Your task to perform on an android device: see creations saved in the google photos Image 0: 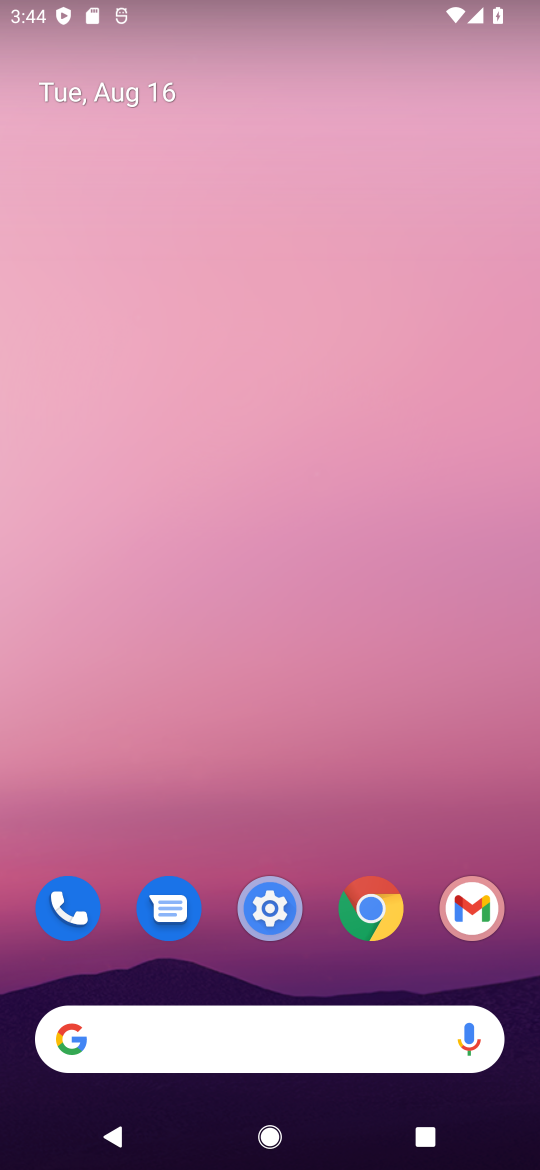
Step 0: click (268, 906)
Your task to perform on an android device: see creations saved in the google photos Image 1: 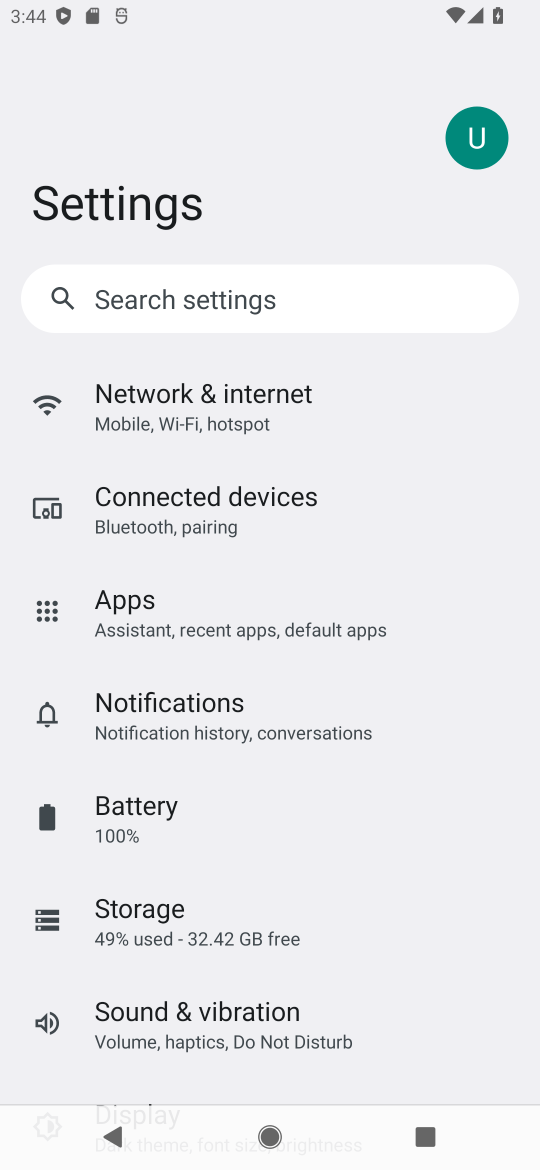
Step 1: press home button
Your task to perform on an android device: see creations saved in the google photos Image 2: 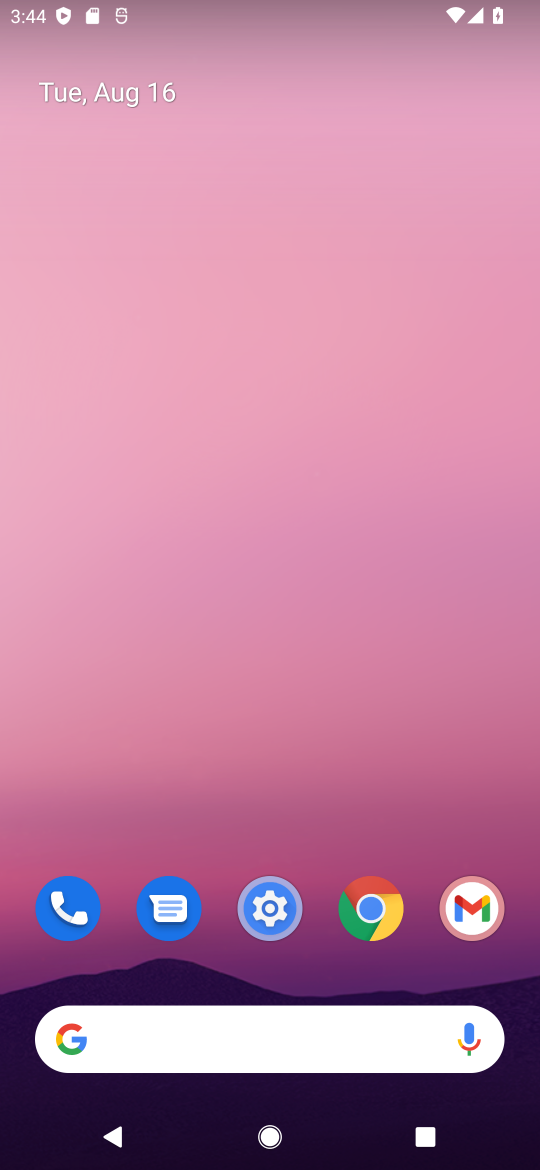
Step 2: drag from (312, 858) to (329, 89)
Your task to perform on an android device: see creations saved in the google photos Image 3: 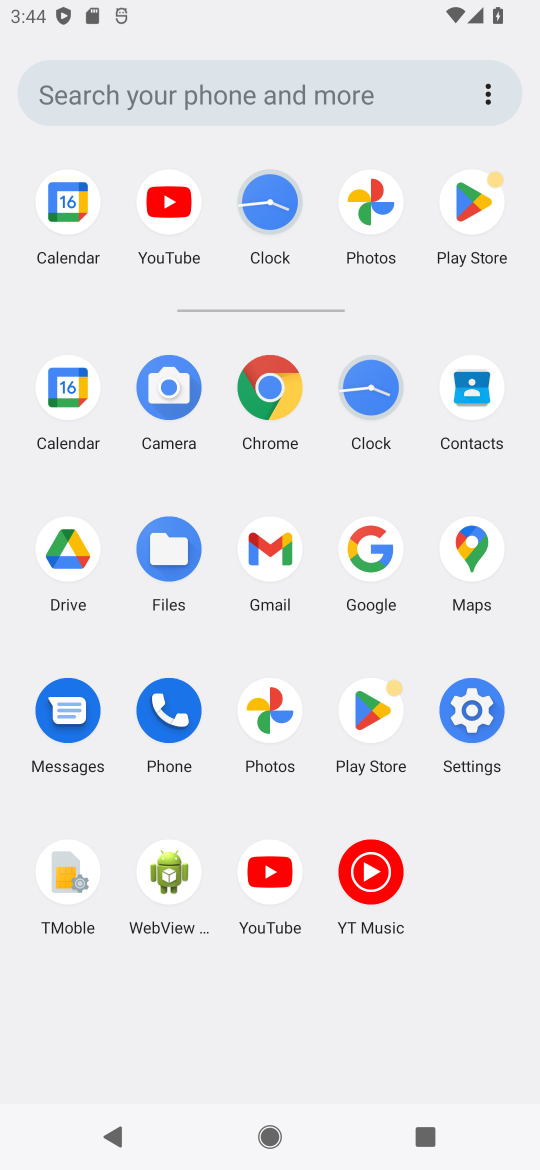
Step 3: click (266, 700)
Your task to perform on an android device: see creations saved in the google photos Image 4: 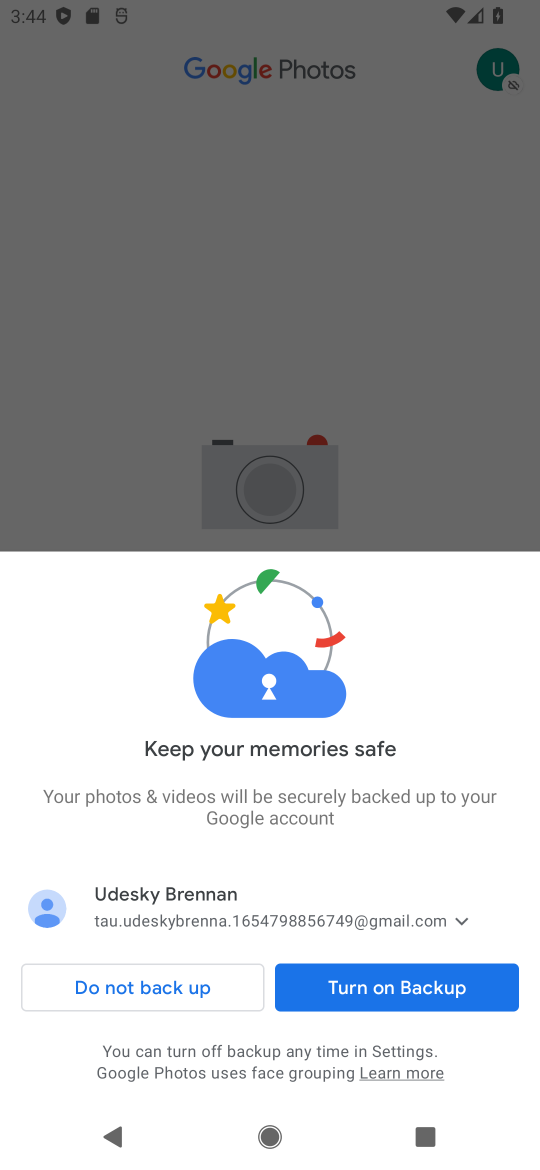
Step 4: press home button
Your task to perform on an android device: see creations saved in the google photos Image 5: 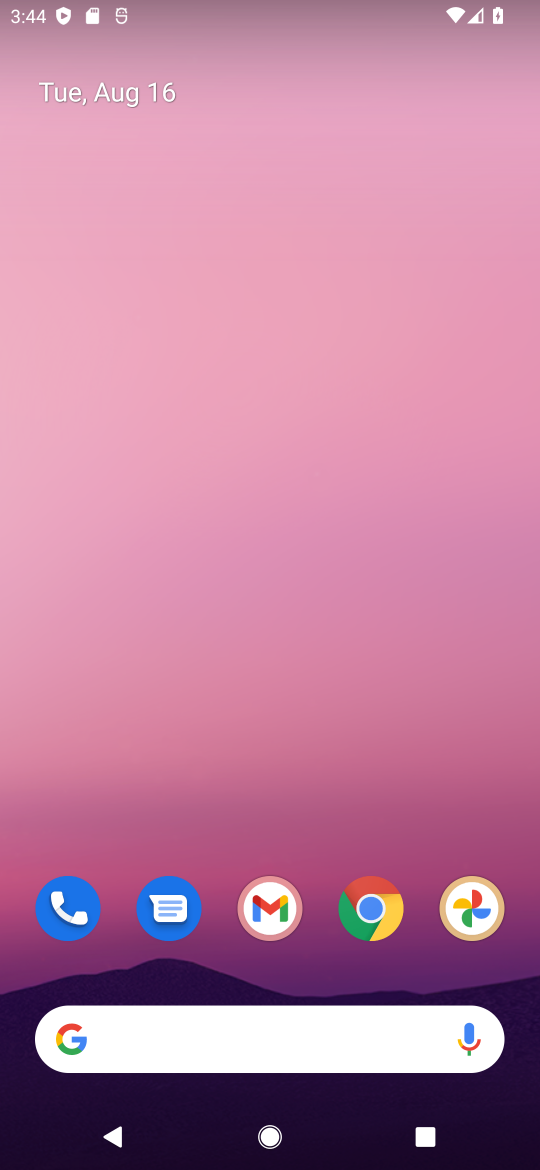
Step 5: click (470, 893)
Your task to perform on an android device: see creations saved in the google photos Image 6: 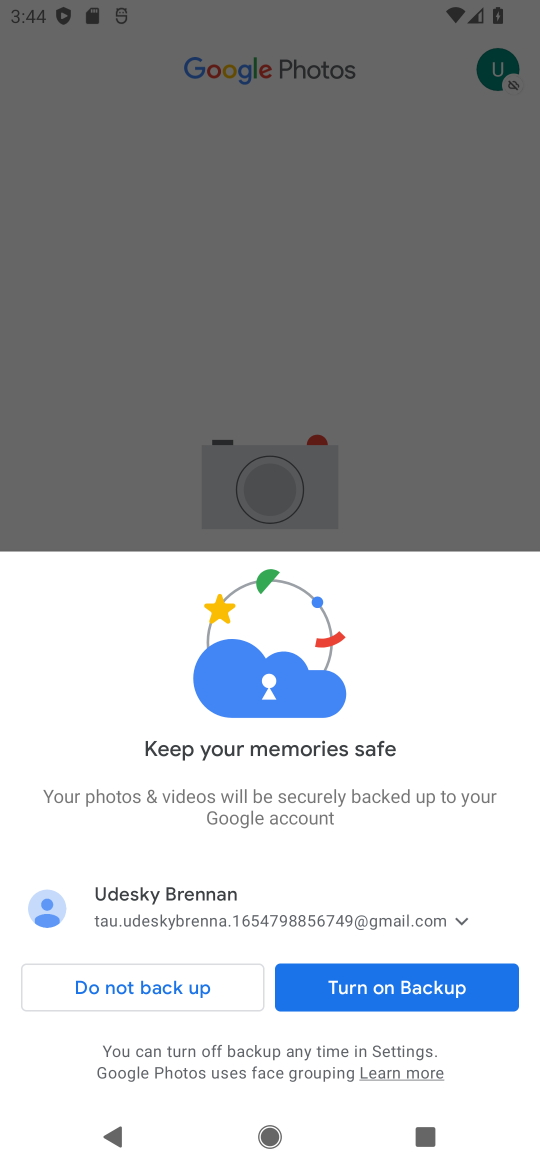
Step 6: click (436, 992)
Your task to perform on an android device: see creations saved in the google photos Image 7: 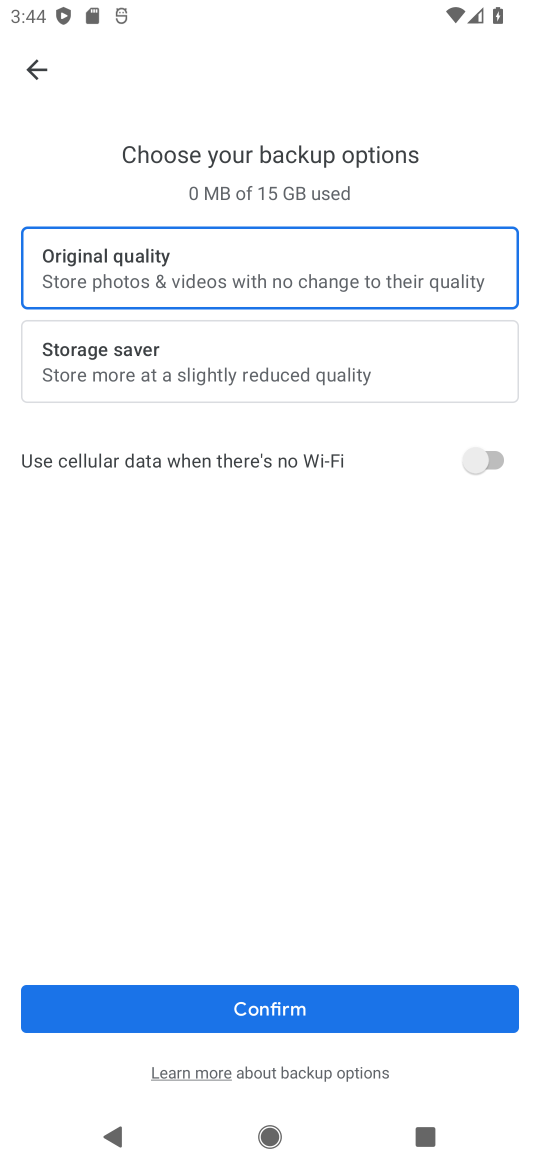
Step 7: click (284, 1003)
Your task to perform on an android device: see creations saved in the google photos Image 8: 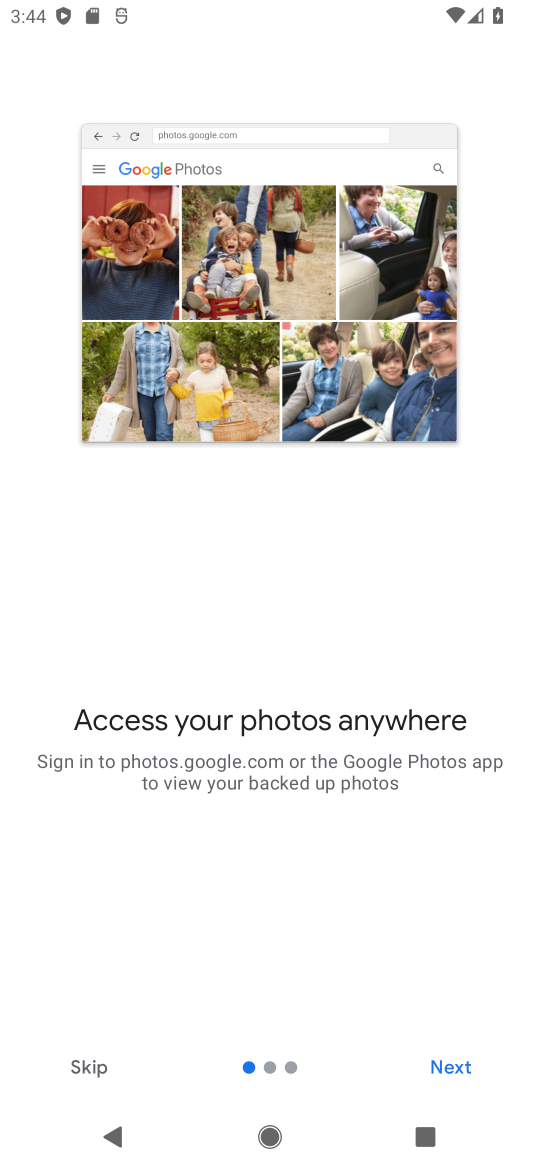
Step 8: click (455, 1056)
Your task to perform on an android device: see creations saved in the google photos Image 9: 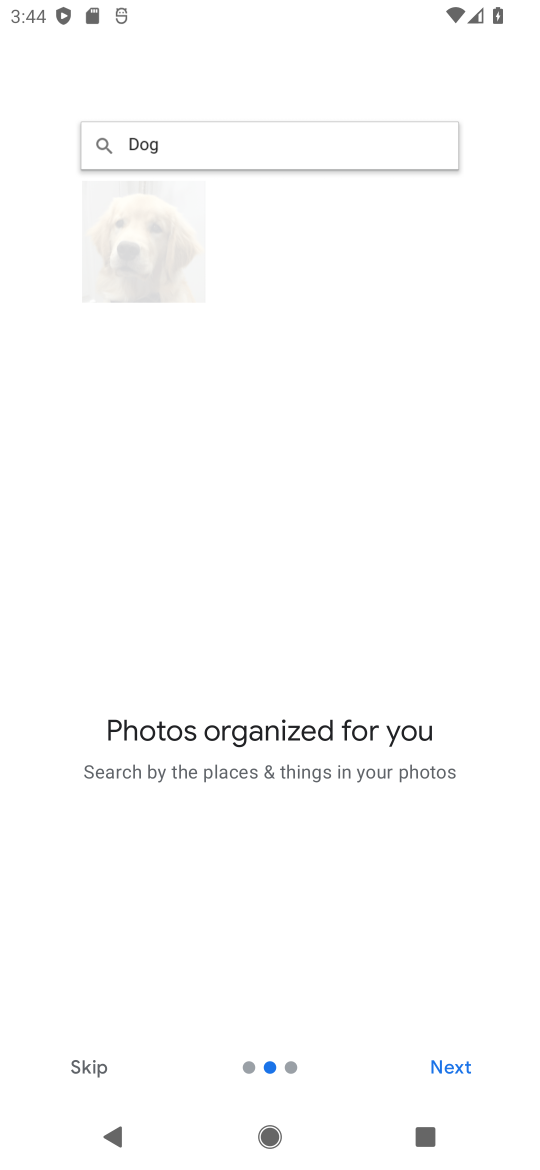
Step 9: click (455, 1056)
Your task to perform on an android device: see creations saved in the google photos Image 10: 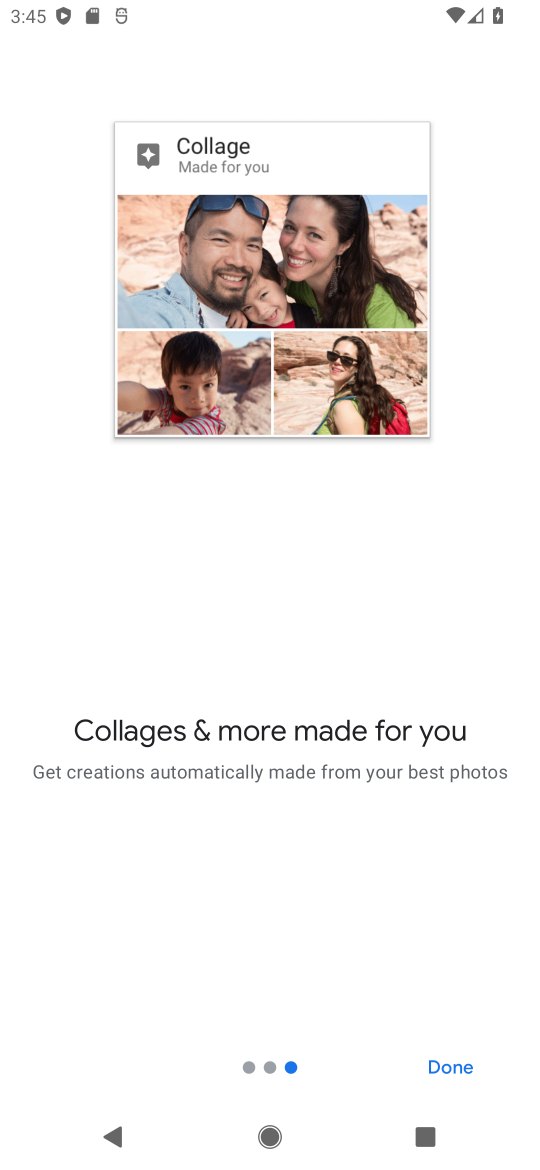
Step 10: click (450, 1065)
Your task to perform on an android device: see creations saved in the google photos Image 11: 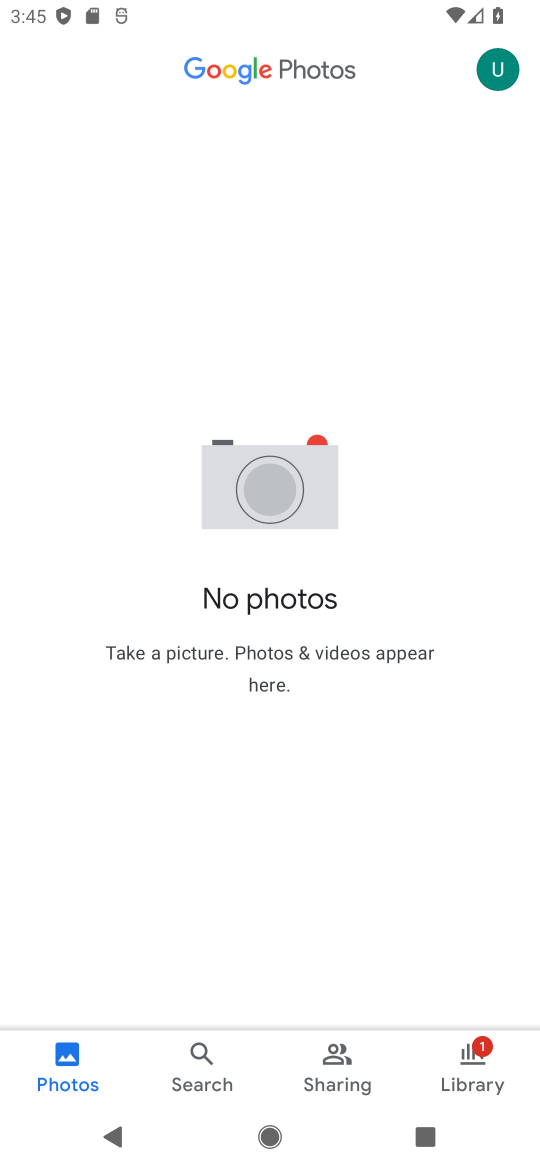
Step 11: click (242, 65)
Your task to perform on an android device: see creations saved in the google photos Image 12: 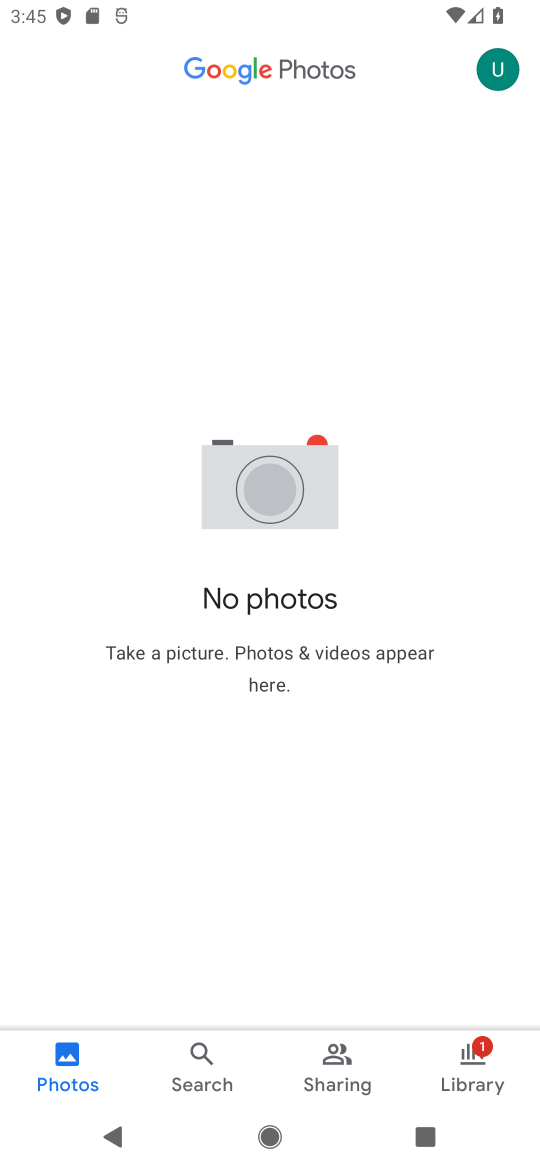
Step 12: click (203, 1065)
Your task to perform on an android device: see creations saved in the google photos Image 13: 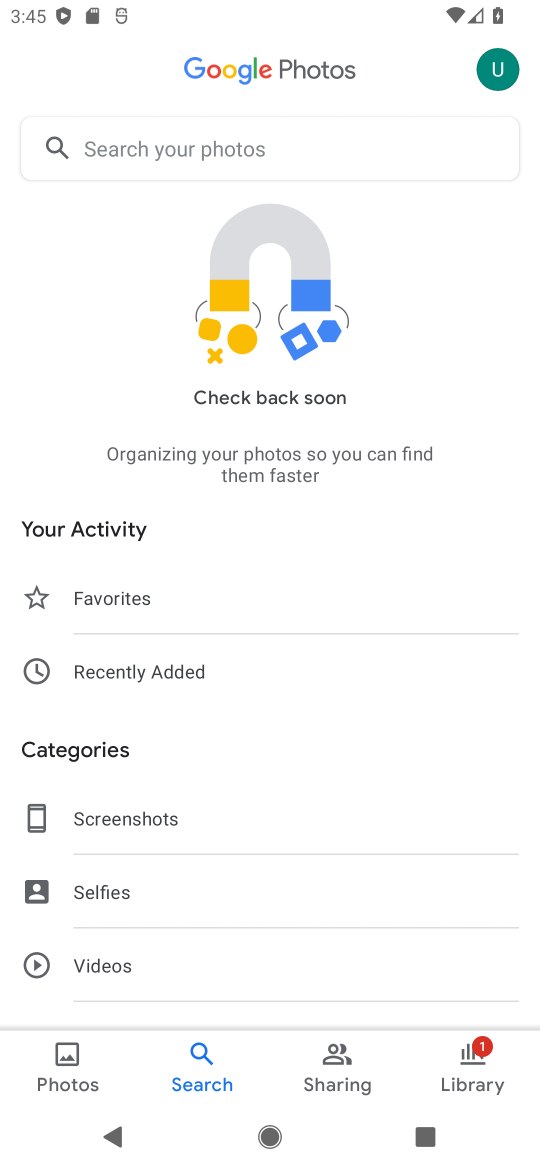
Step 13: drag from (175, 928) to (261, 291)
Your task to perform on an android device: see creations saved in the google photos Image 14: 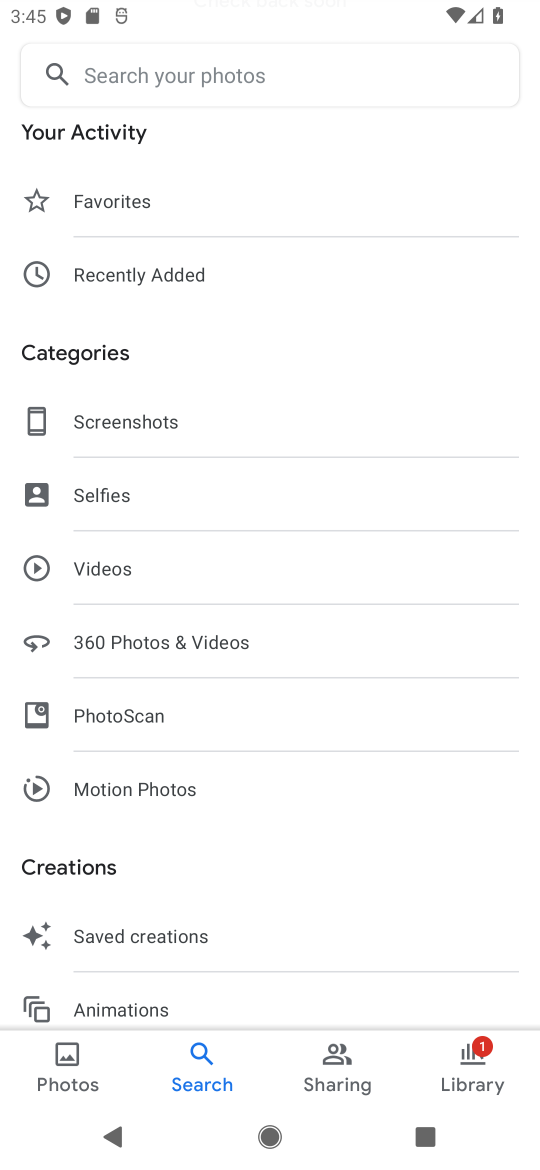
Step 14: click (210, 941)
Your task to perform on an android device: see creations saved in the google photos Image 15: 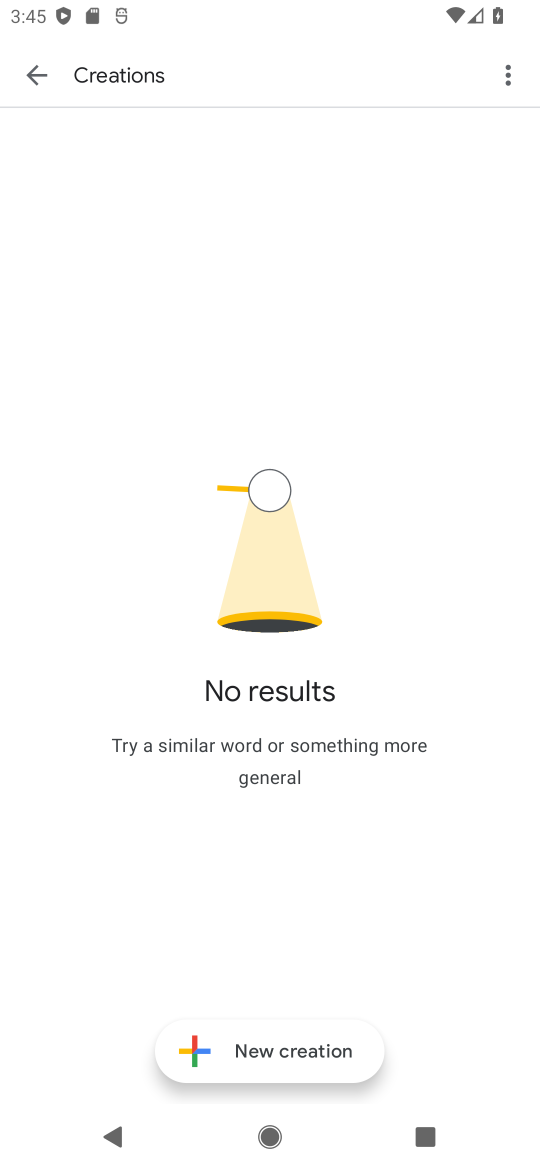
Step 15: task complete